Your task to perform on an android device: turn off smart reply in the gmail app Image 0: 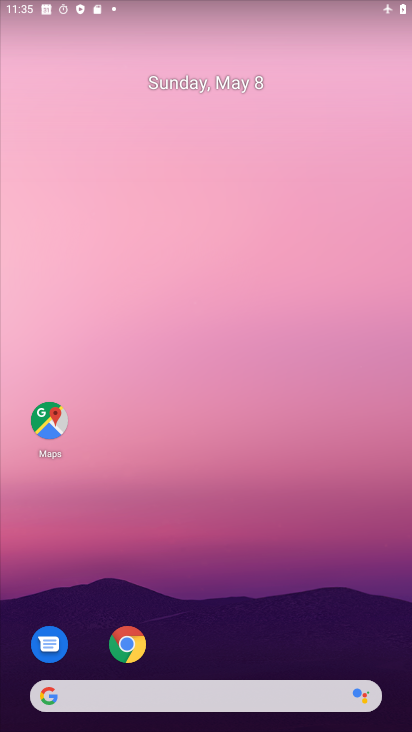
Step 0: drag from (183, 631) to (165, 297)
Your task to perform on an android device: turn off smart reply in the gmail app Image 1: 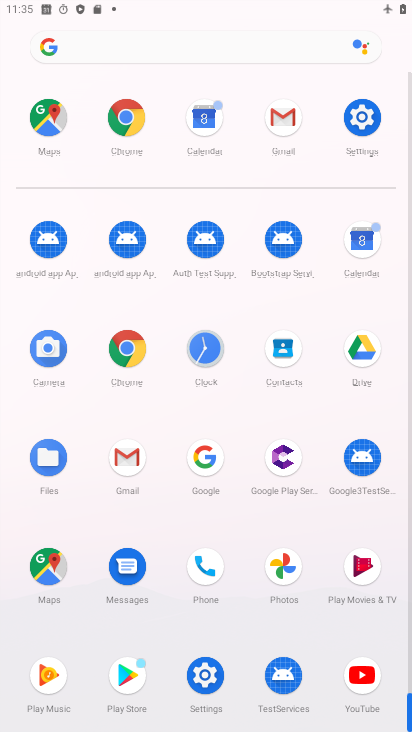
Step 1: click (138, 457)
Your task to perform on an android device: turn off smart reply in the gmail app Image 2: 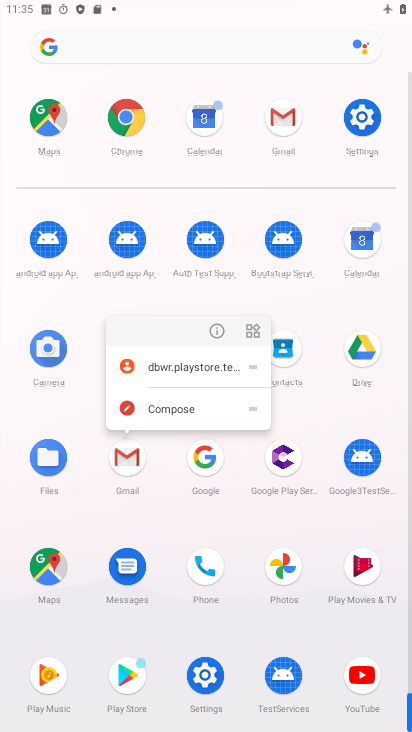
Step 2: click (218, 324)
Your task to perform on an android device: turn off smart reply in the gmail app Image 3: 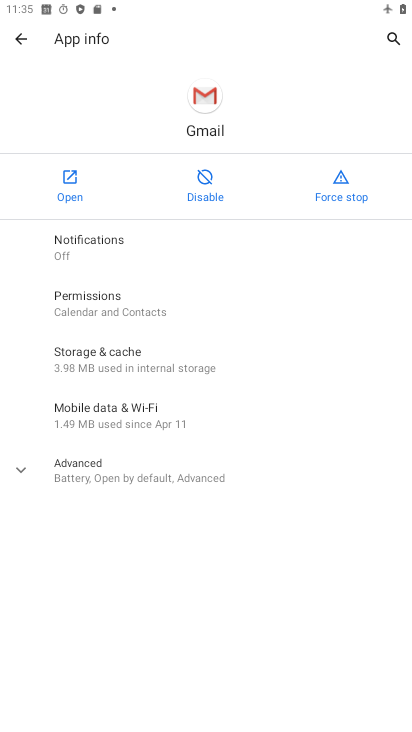
Step 3: click (74, 182)
Your task to perform on an android device: turn off smart reply in the gmail app Image 4: 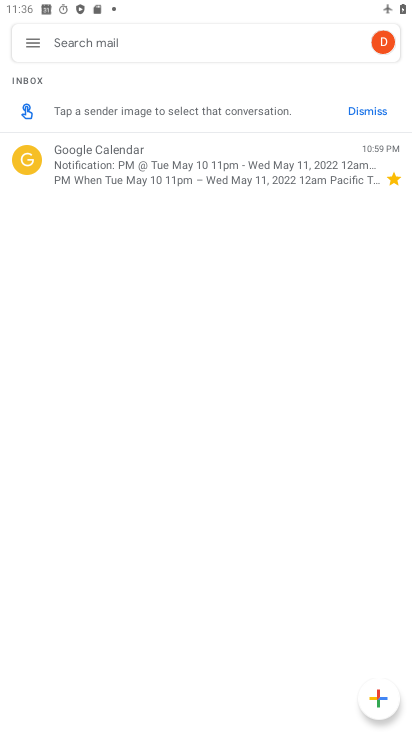
Step 4: click (35, 49)
Your task to perform on an android device: turn off smart reply in the gmail app Image 5: 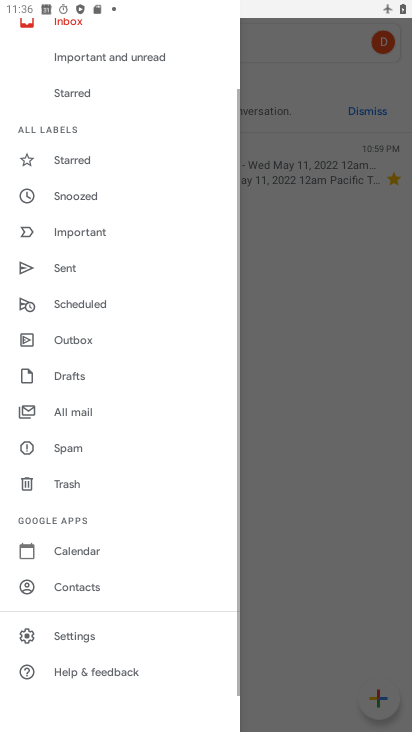
Step 5: click (102, 633)
Your task to perform on an android device: turn off smart reply in the gmail app Image 6: 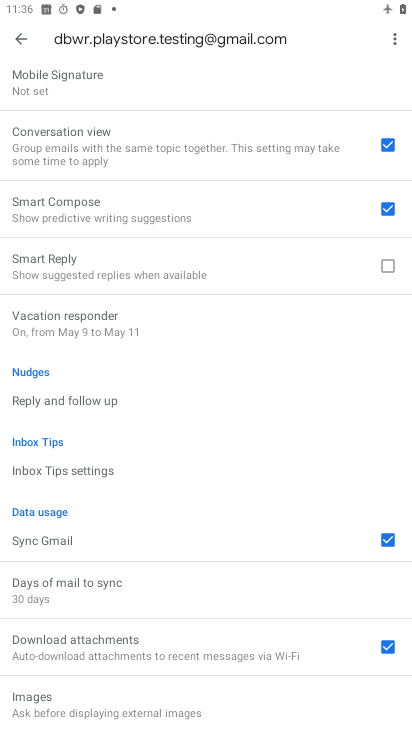
Step 6: click (329, 267)
Your task to perform on an android device: turn off smart reply in the gmail app Image 7: 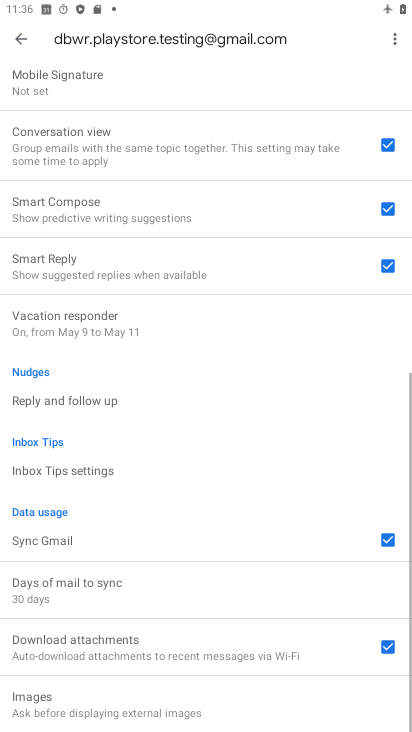
Step 7: click (376, 268)
Your task to perform on an android device: turn off smart reply in the gmail app Image 8: 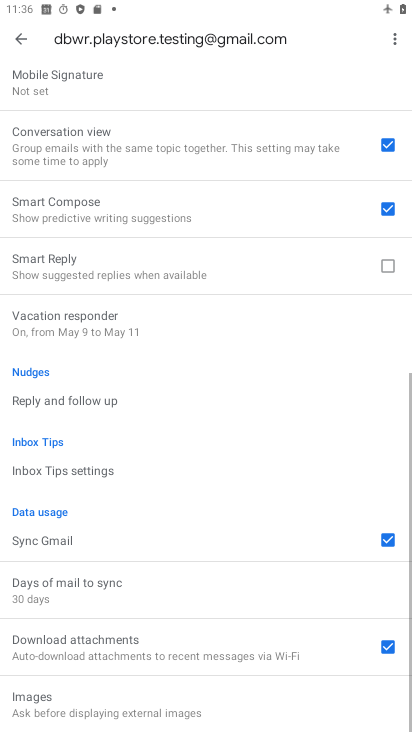
Step 8: task complete